Your task to perform on an android device: Search for sushi restaurants on Maps Image 0: 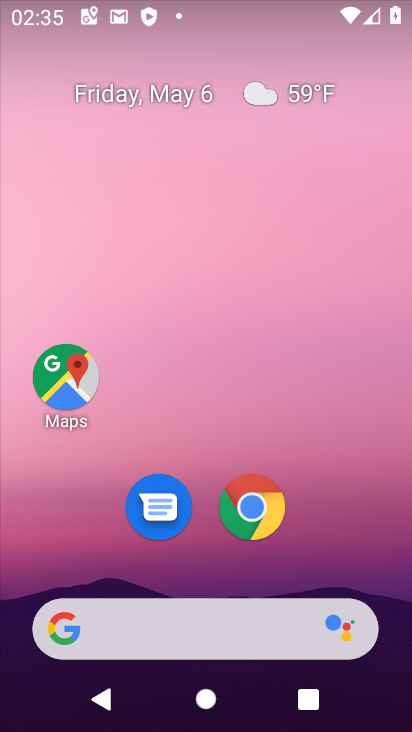
Step 0: click (44, 374)
Your task to perform on an android device: Search for sushi restaurants on Maps Image 1: 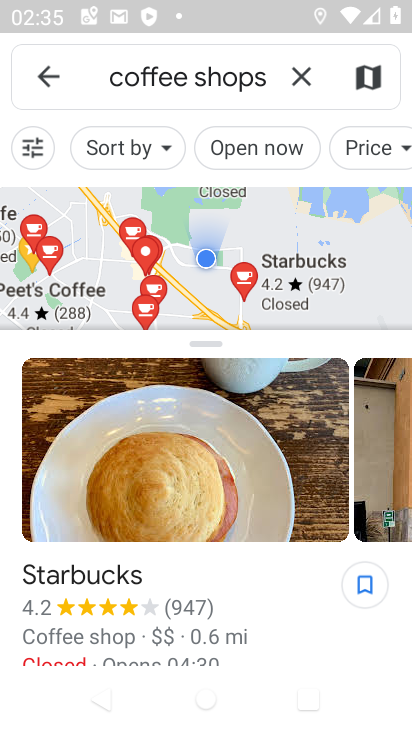
Step 1: click (302, 84)
Your task to perform on an android device: Search for sushi restaurants on Maps Image 2: 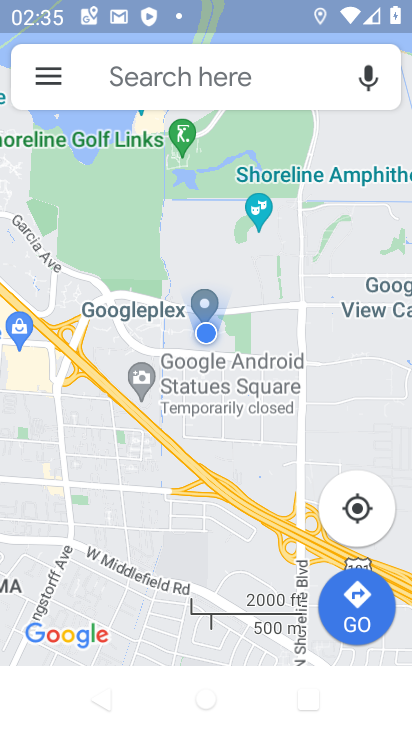
Step 2: click (258, 82)
Your task to perform on an android device: Search for sushi restaurants on Maps Image 3: 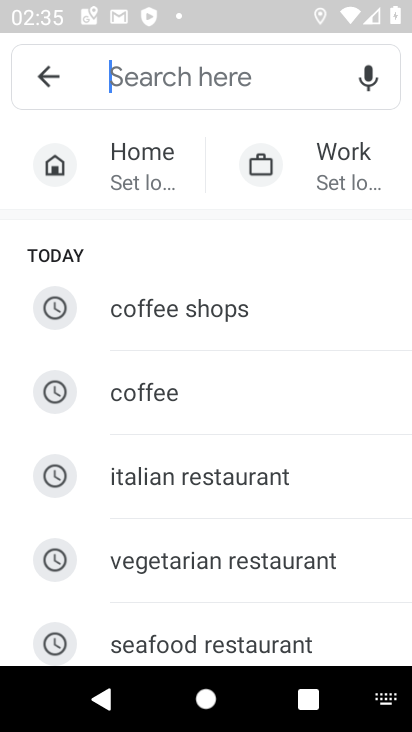
Step 3: drag from (209, 580) to (321, 580)
Your task to perform on an android device: Search for sushi restaurants on Maps Image 4: 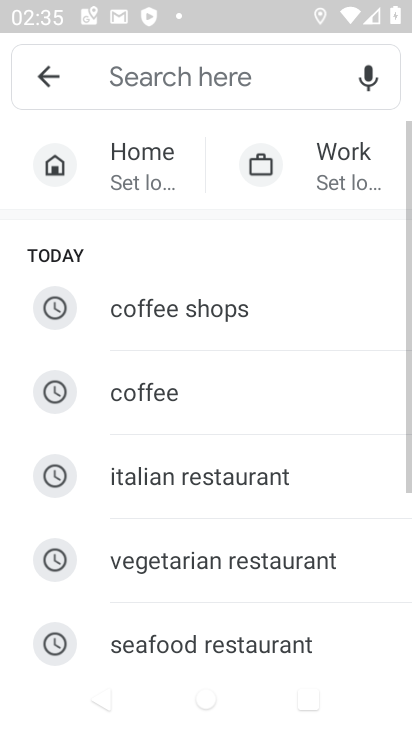
Step 4: click (196, 87)
Your task to perform on an android device: Search for sushi restaurants on Maps Image 5: 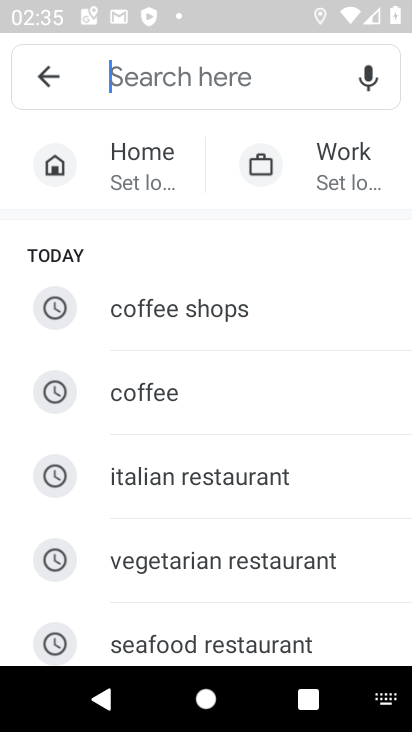
Step 5: type "sushi restaurant"
Your task to perform on an android device: Search for sushi restaurants on Maps Image 6: 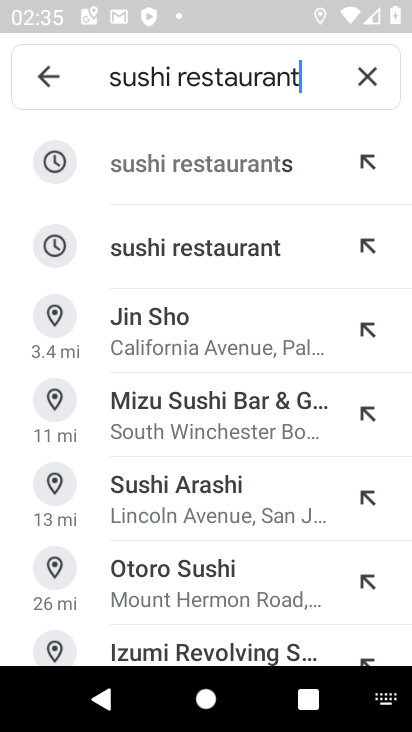
Step 6: click (199, 248)
Your task to perform on an android device: Search for sushi restaurants on Maps Image 7: 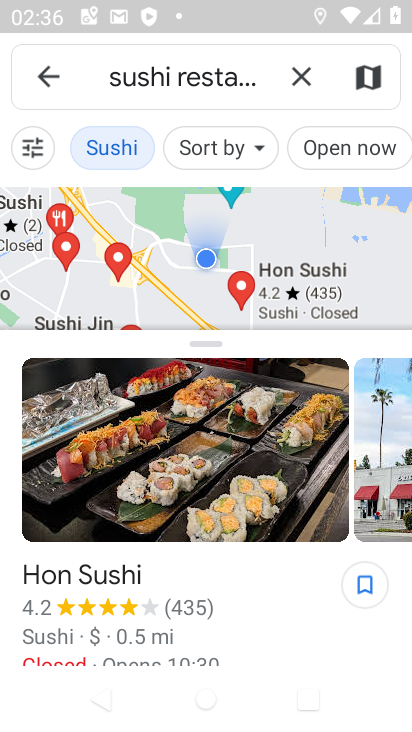
Step 7: task complete